Your task to perform on an android device: open app "Google Home" Image 0: 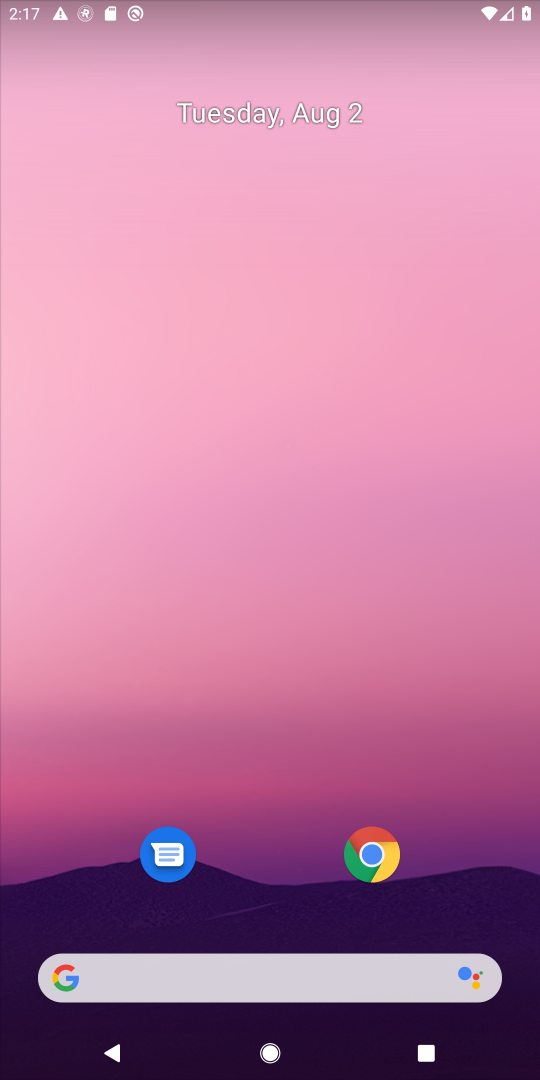
Step 0: drag from (306, 970) to (297, 95)
Your task to perform on an android device: open app "Google Home" Image 1: 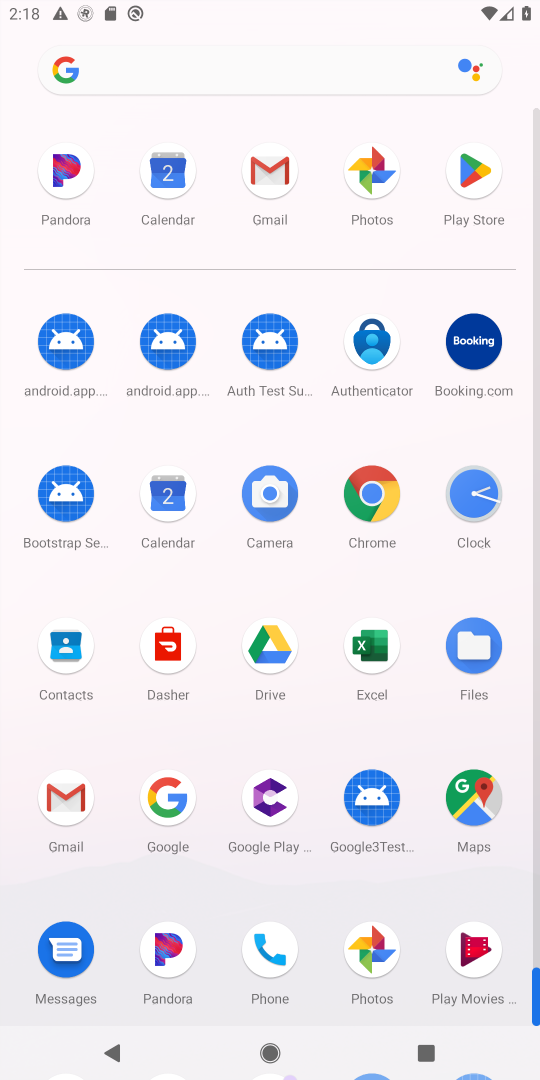
Step 1: click (166, 796)
Your task to perform on an android device: open app "Google Home" Image 2: 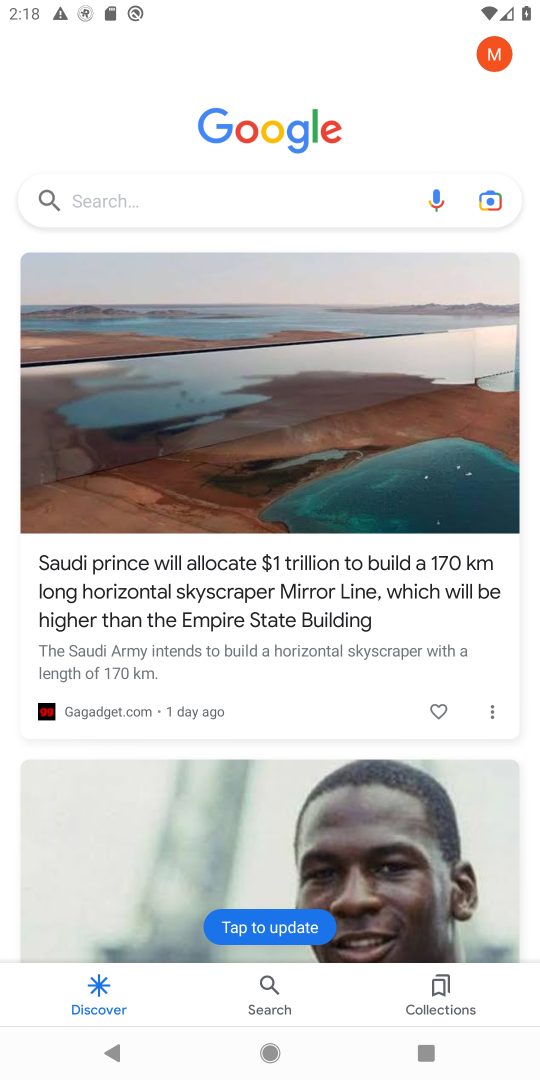
Step 2: task complete